Your task to perform on an android device: stop showing notifications on the lock screen Image 0: 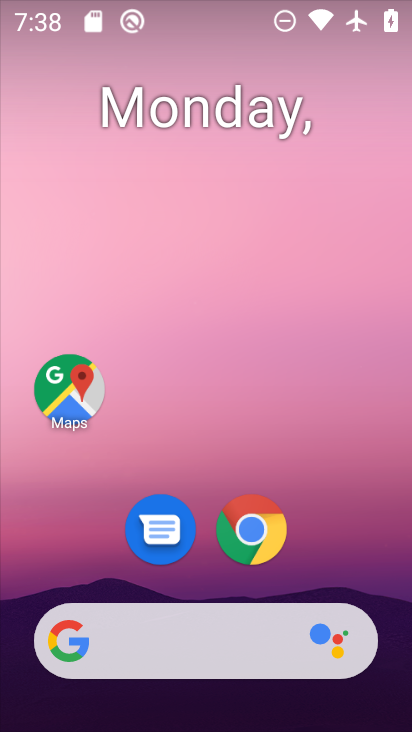
Step 0: drag from (358, 491) to (237, 54)
Your task to perform on an android device: stop showing notifications on the lock screen Image 1: 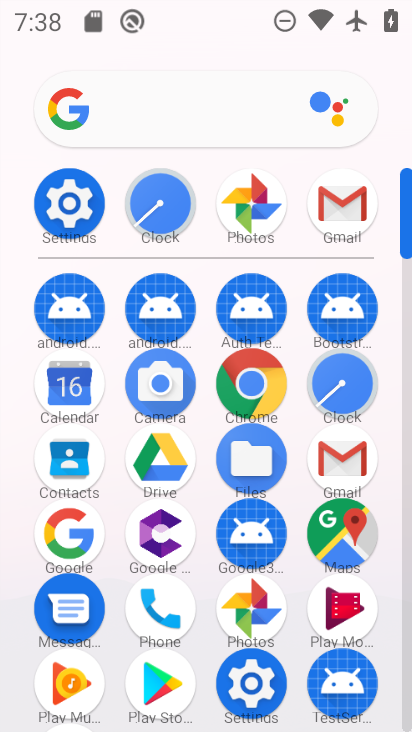
Step 1: click (64, 204)
Your task to perform on an android device: stop showing notifications on the lock screen Image 2: 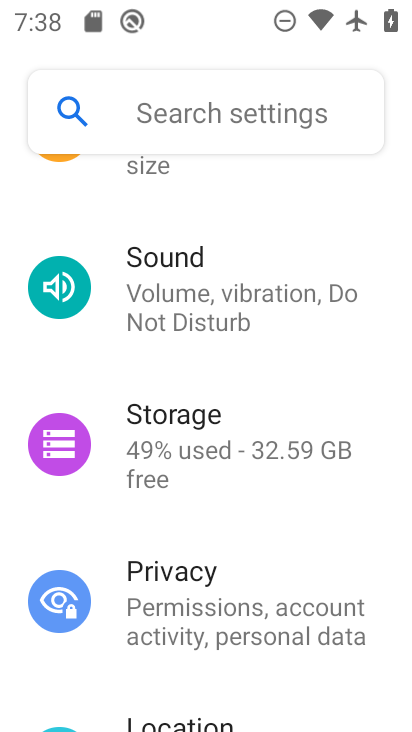
Step 2: drag from (266, 220) to (255, 607)
Your task to perform on an android device: stop showing notifications on the lock screen Image 3: 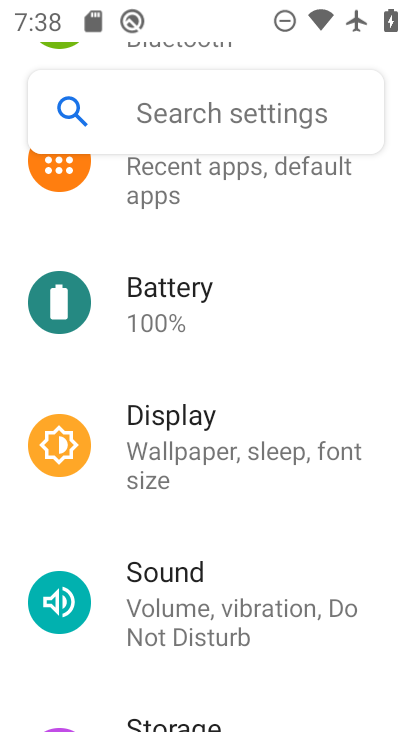
Step 3: drag from (235, 246) to (251, 596)
Your task to perform on an android device: stop showing notifications on the lock screen Image 4: 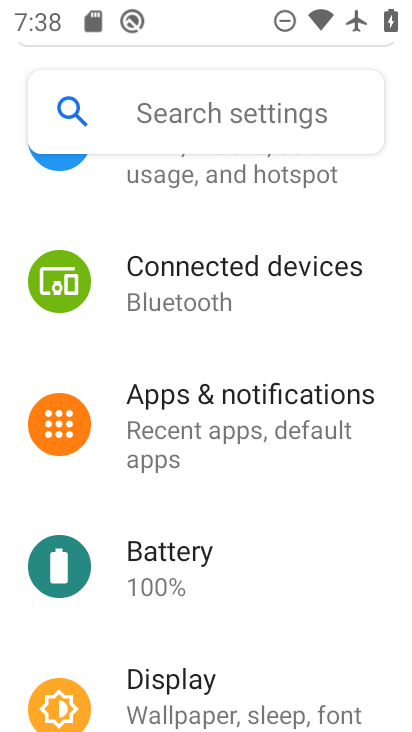
Step 4: click (241, 387)
Your task to perform on an android device: stop showing notifications on the lock screen Image 5: 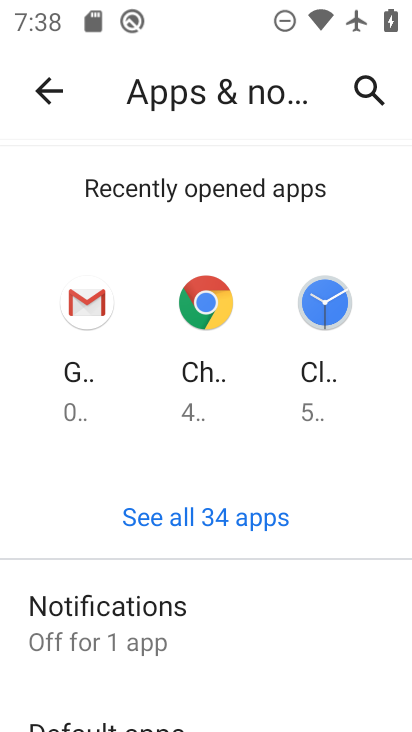
Step 5: click (144, 593)
Your task to perform on an android device: stop showing notifications on the lock screen Image 6: 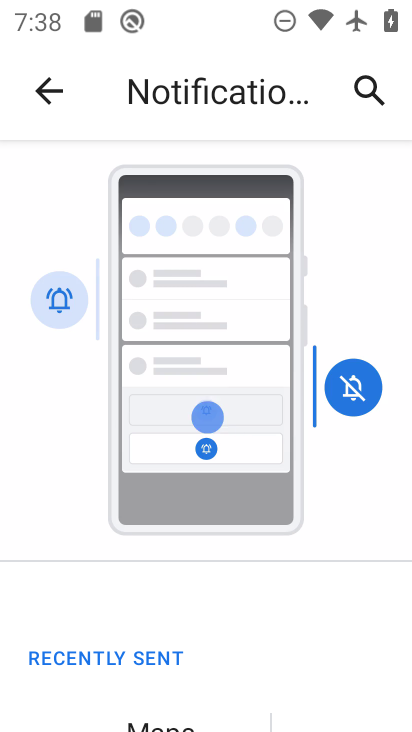
Step 6: drag from (244, 587) to (186, 321)
Your task to perform on an android device: stop showing notifications on the lock screen Image 7: 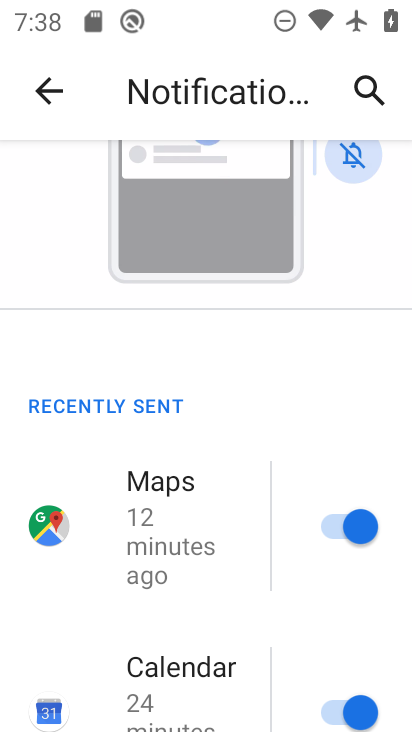
Step 7: drag from (250, 606) to (191, 181)
Your task to perform on an android device: stop showing notifications on the lock screen Image 8: 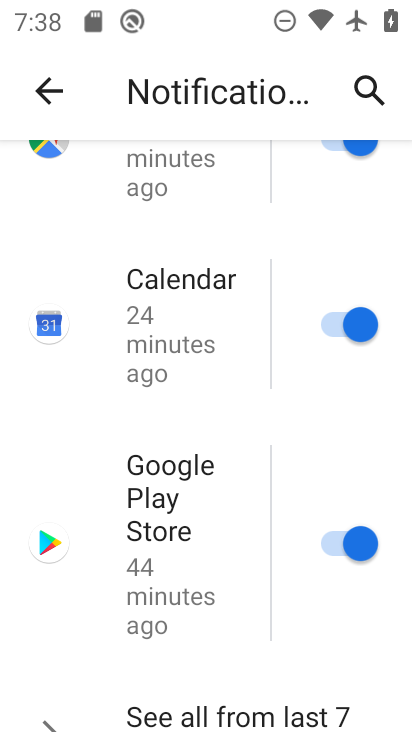
Step 8: drag from (285, 611) to (229, 392)
Your task to perform on an android device: stop showing notifications on the lock screen Image 9: 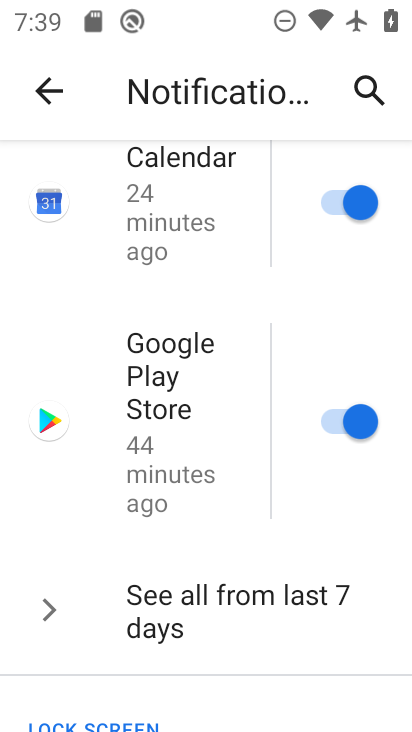
Step 9: drag from (287, 662) to (232, 283)
Your task to perform on an android device: stop showing notifications on the lock screen Image 10: 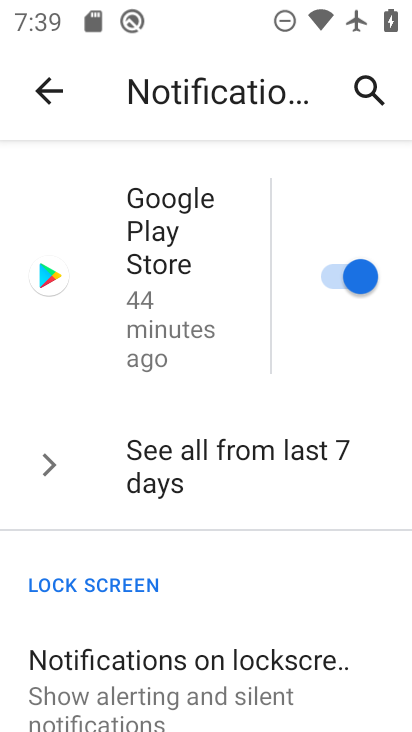
Step 10: click (192, 660)
Your task to perform on an android device: stop showing notifications on the lock screen Image 11: 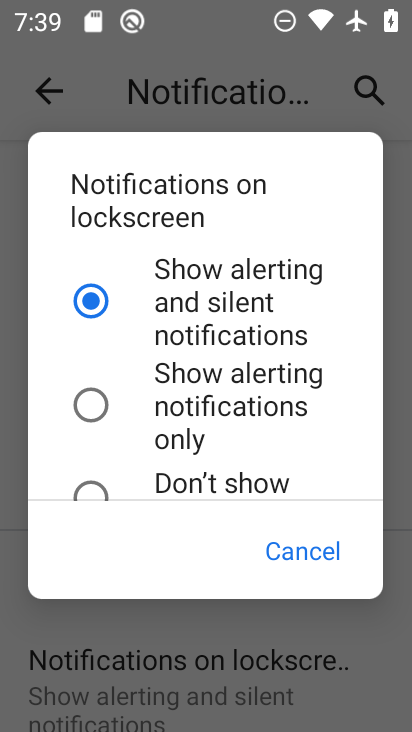
Step 11: click (94, 491)
Your task to perform on an android device: stop showing notifications on the lock screen Image 12: 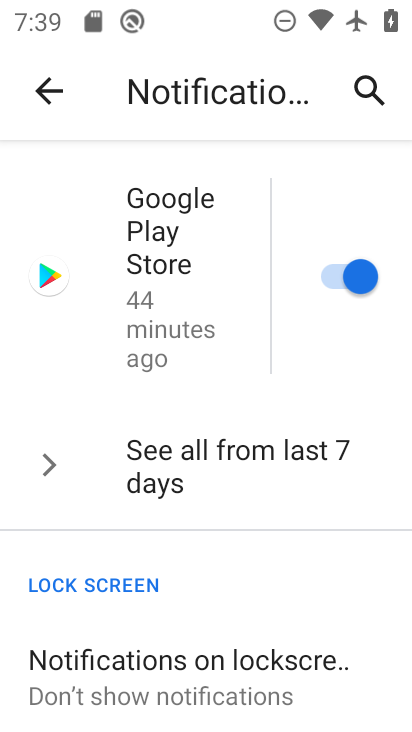
Step 12: task complete